Your task to perform on an android device: Open CNN.com Image 0: 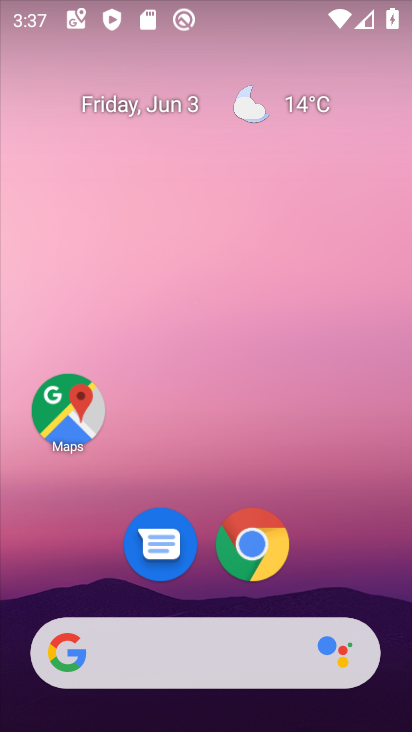
Step 0: click (254, 541)
Your task to perform on an android device: Open CNN.com Image 1: 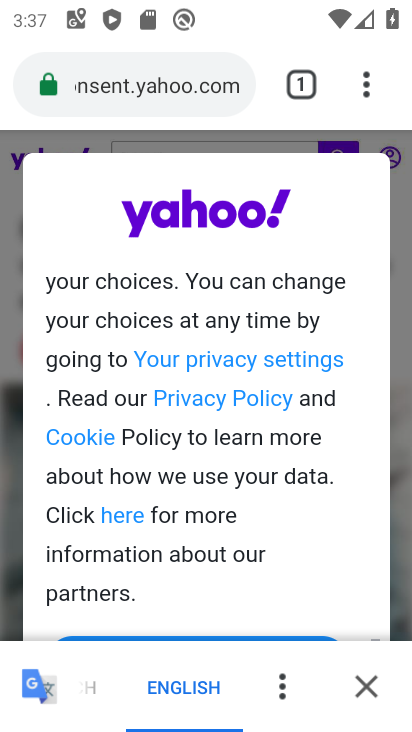
Step 1: click (225, 66)
Your task to perform on an android device: Open CNN.com Image 2: 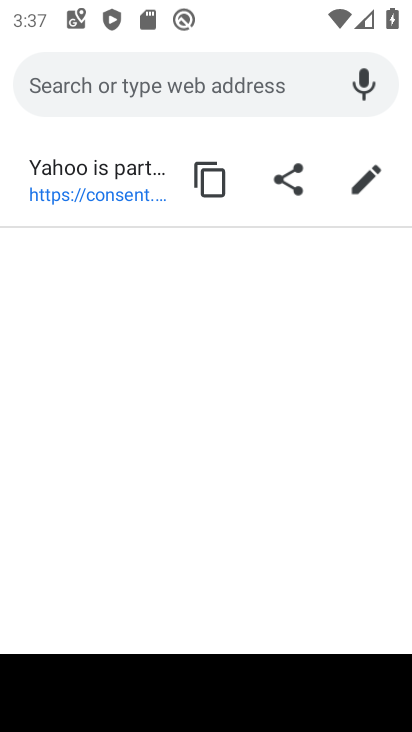
Step 2: type "cnn.com"
Your task to perform on an android device: Open CNN.com Image 3: 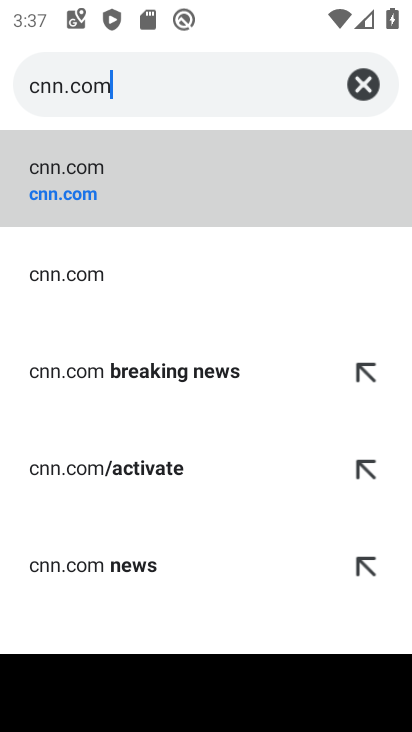
Step 3: click (107, 188)
Your task to perform on an android device: Open CNN.com Image 4: 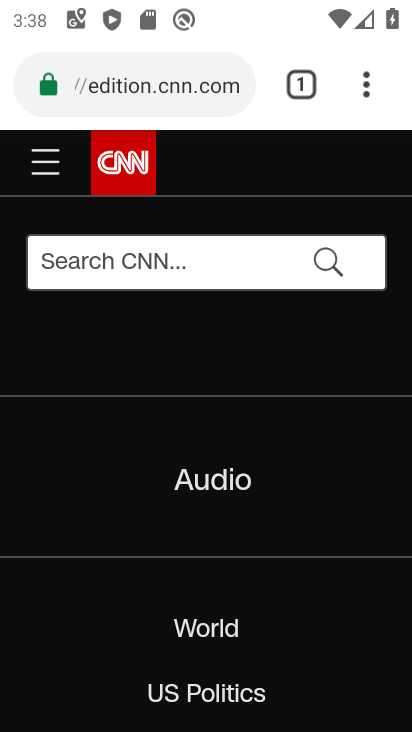
Step 4: task complete